Your task to perform on an android device: Go to settings Image 0: 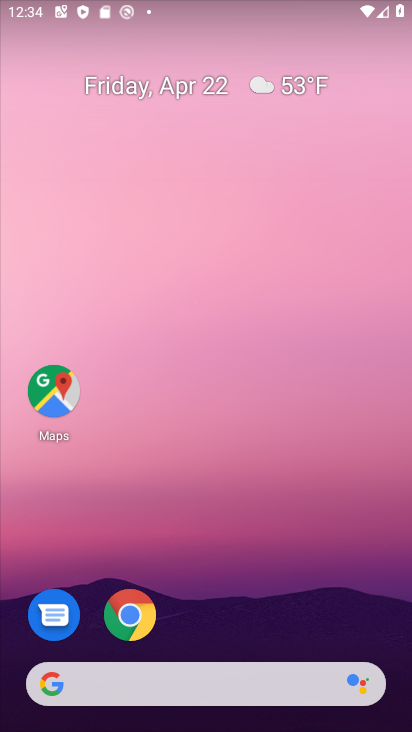
Step 0: drag from (350, 598) to (389, 42)
Your task to perform on an android device: Go to settings Image 1: 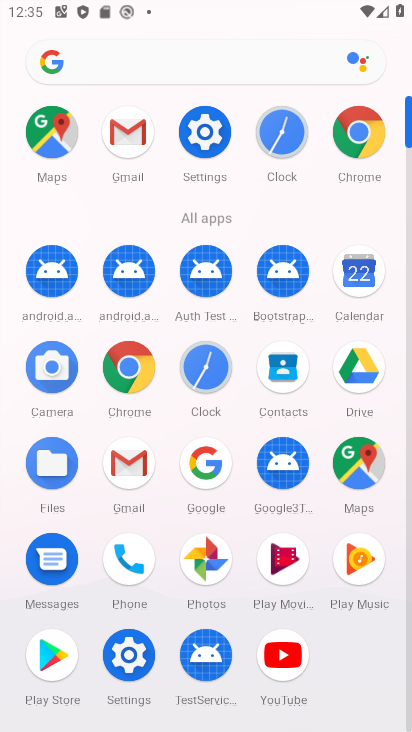
Step 1: click (205, 138)
Your task to perform on an android device: Go to settings Image 2: 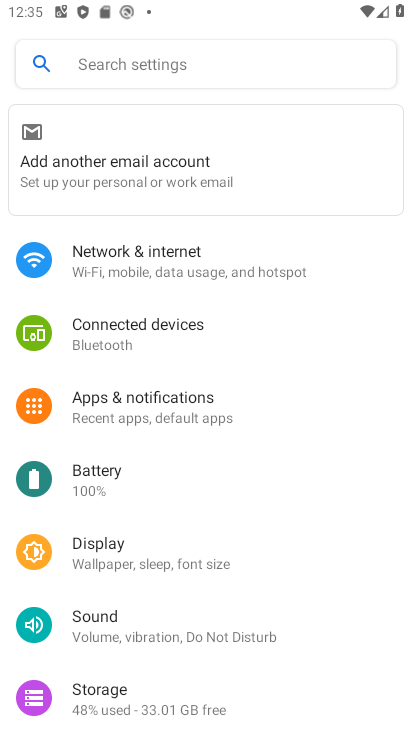
Step 2: task complete